Your task to perform on an android device: Play the last video I watched on Youtube Image 0: 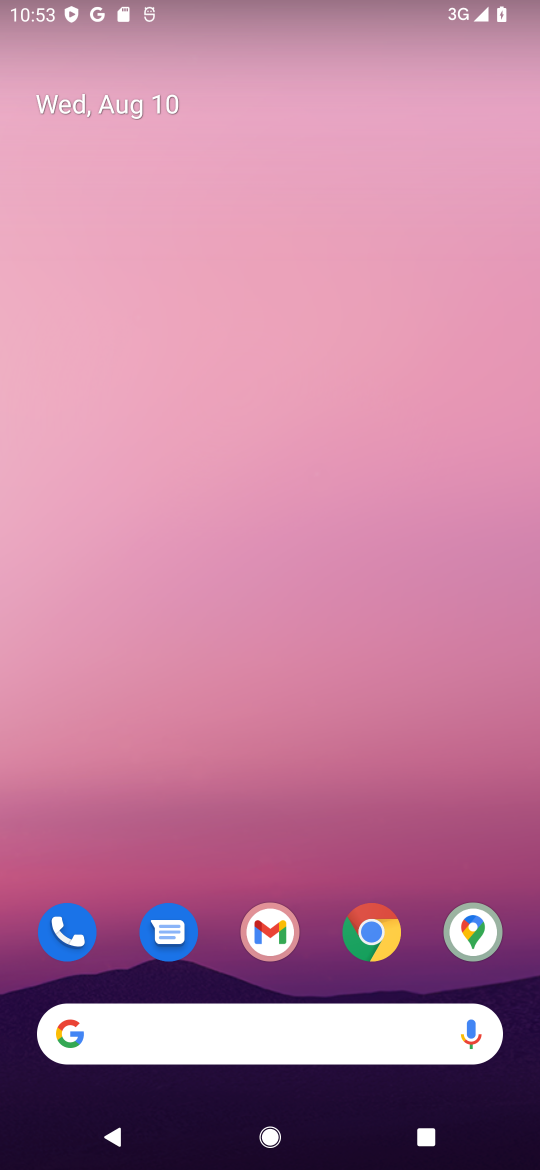
Step 0: drag from (318, 871) to (256, 338)
Your task to perform on an android device: Play the last video I watched on Youtube Image 1: 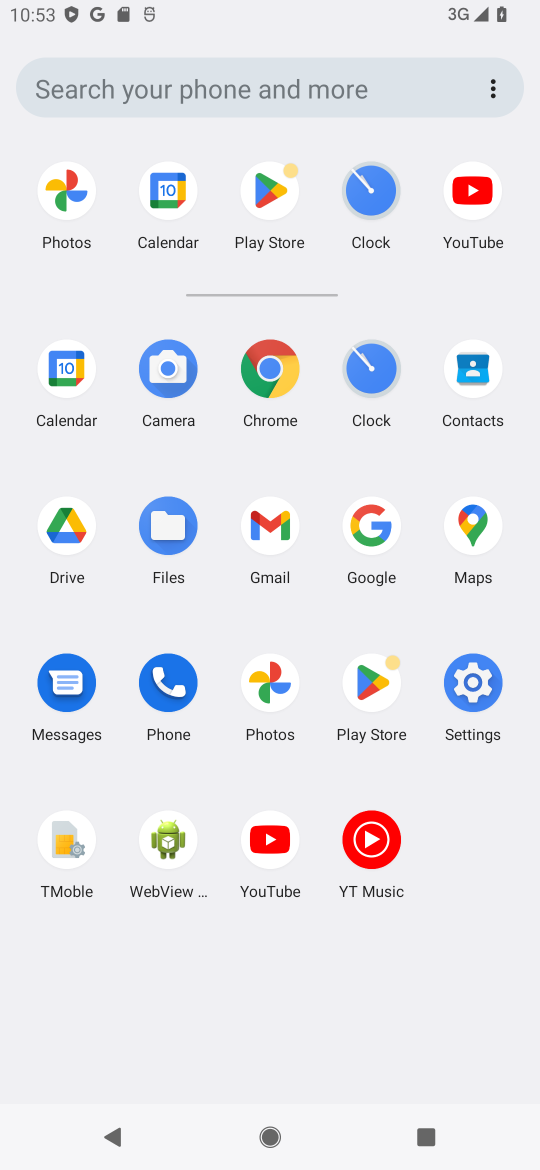
Step 1: click (473, 199)
Your task to perform on an android device: Play the last video I watched on Youtube Image 2: 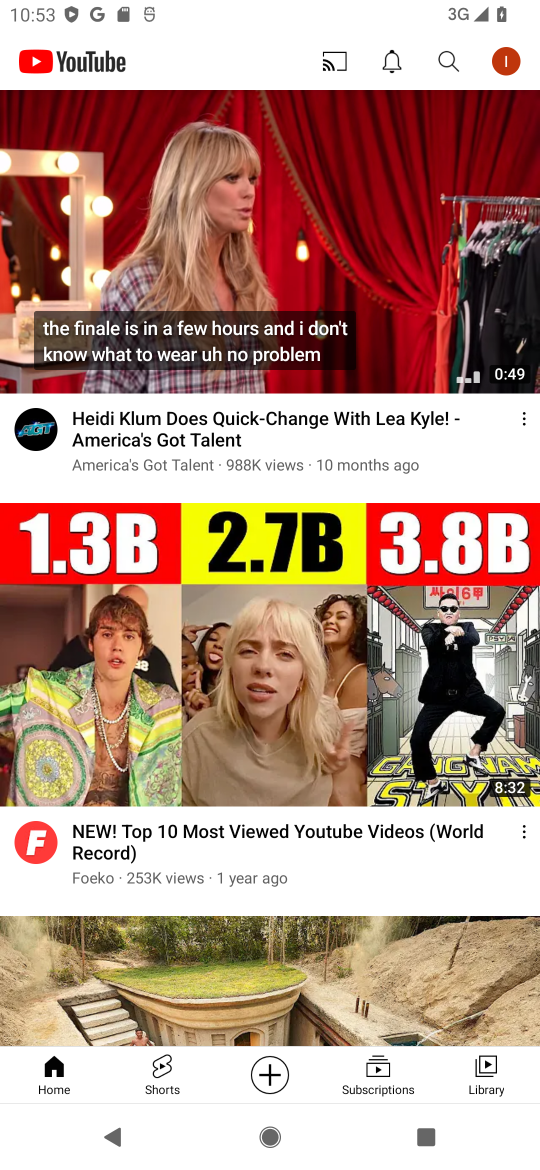
Step 2: click (479, 1065)
Your task to perform on an android device: Play the last video I watched on Youtube Image 3: 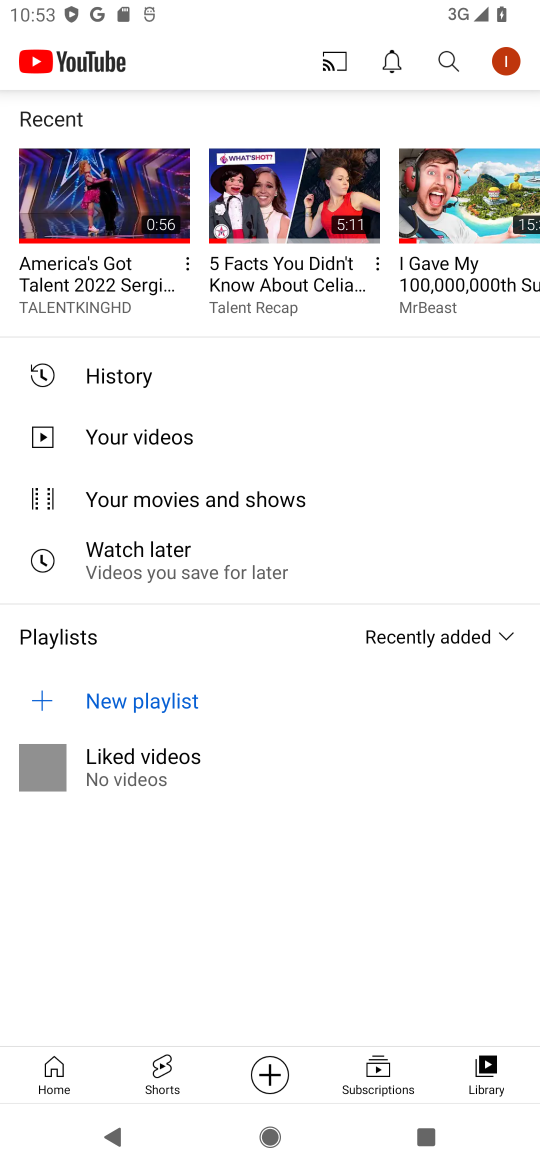
Step 3: click (64, 209)
Your task to perform on an android device: Play the last video I watched on Youtube Image 4: 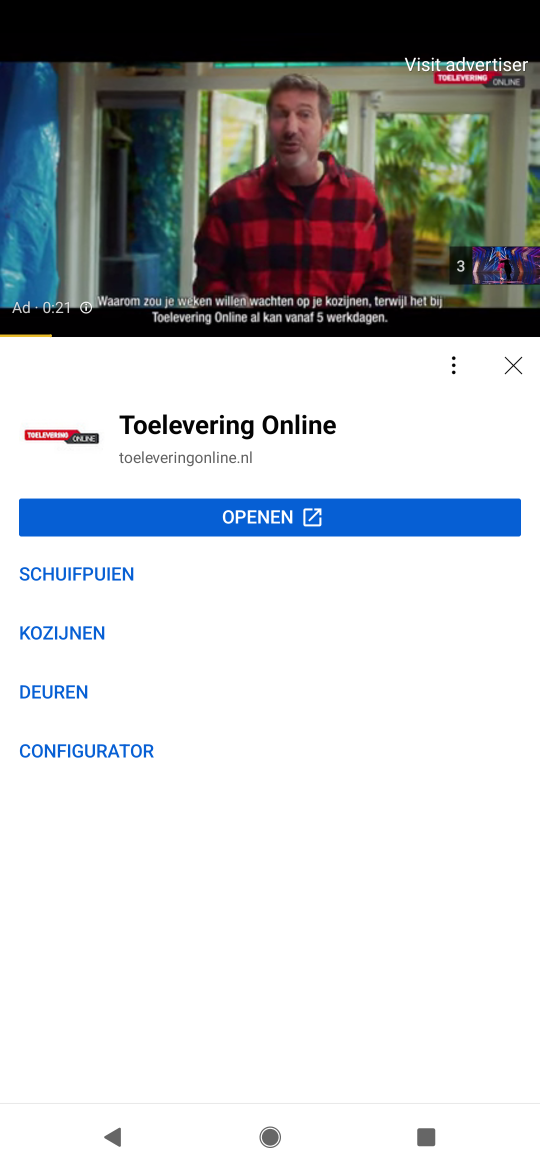
Step 4: task complete